Your task to perform on an android device: change keyboard looks Image 0: 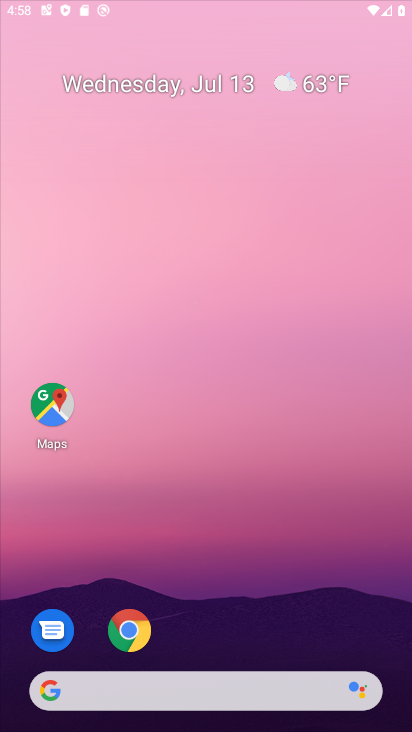
Step 0: press home button
Your task to perform on an android device: change keyboard looks Image 1: 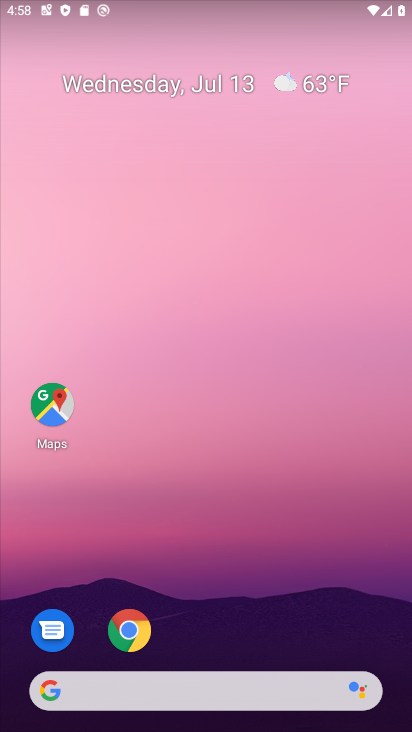
Step 1: drag from (245, 606) to (280, 68)
Your task to perform on an android device: change keyboard looks Image 2: 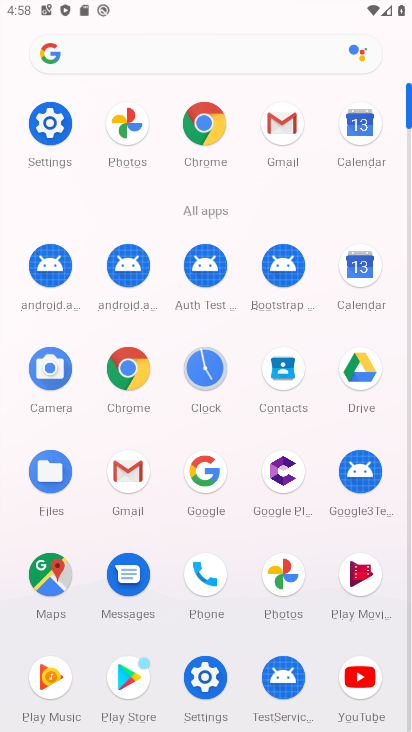
Step 2: click (58, 124)
Your task to perform on an android device: change keyboard looks Image 3: 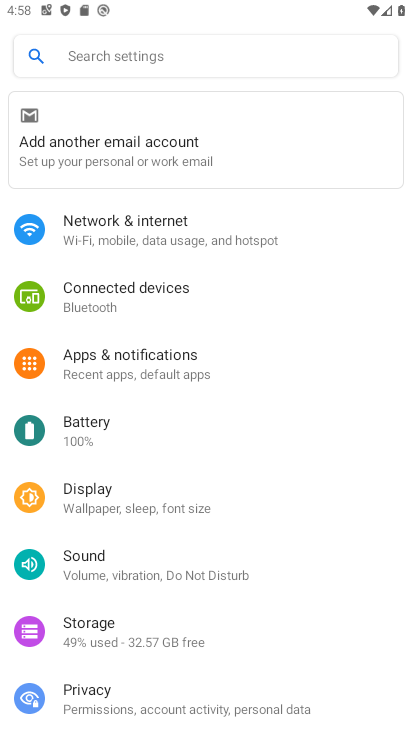
Step 3: drag from (351, 690) to (338, 98)
Your task to perform on an android device: change keyboard looks Image 4: 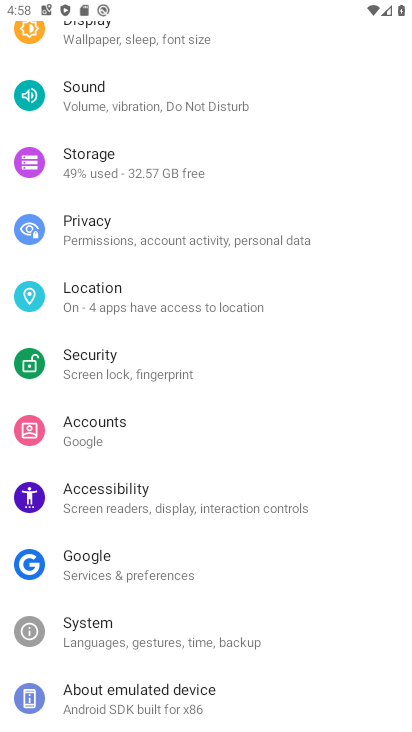
Step 4: click (100, 629)
Your task to perform on an android device: change keyboard looks Image 5: 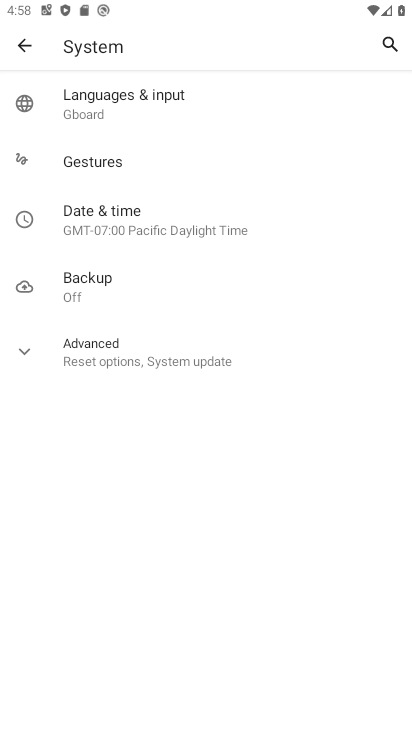
Step 5: click (104, 105)
Your task to perform on an android device: change keyboard looks Image 6: 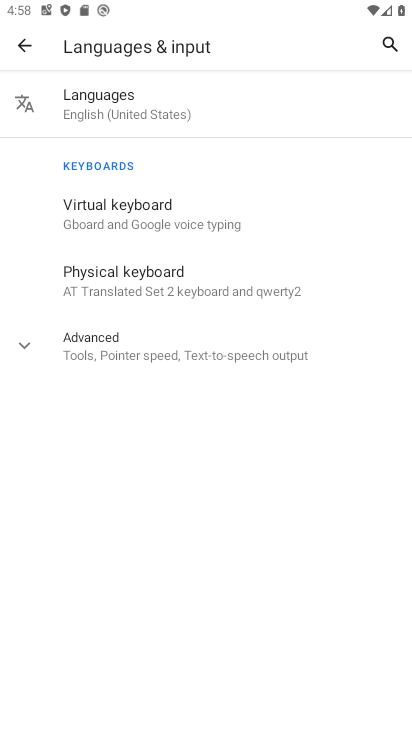
Step 6: click (119, 219)
Your task to perform on an android device: change keyboard looks Image 7: 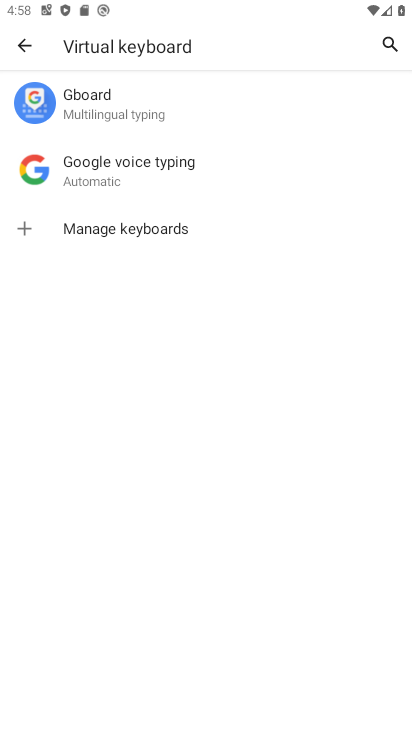
Step 7: click (97, 112)
Your task to perform on an android device: change keyboard looks Image 8: 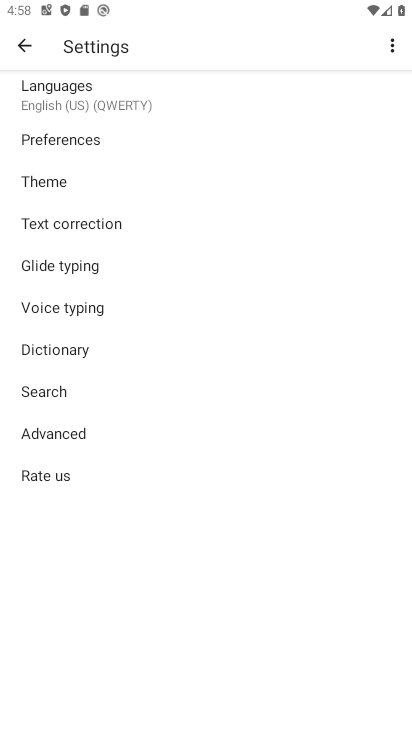
Step 8: click (48, 177)
Your task to perform on an android device: change keyboard looks Image 9: 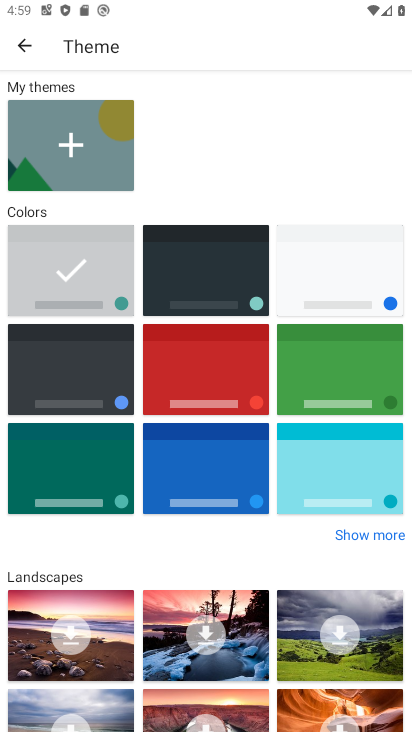
Step 9: click (212, 479)
Your task to perform on an android device: change keyboard looks Image 10: 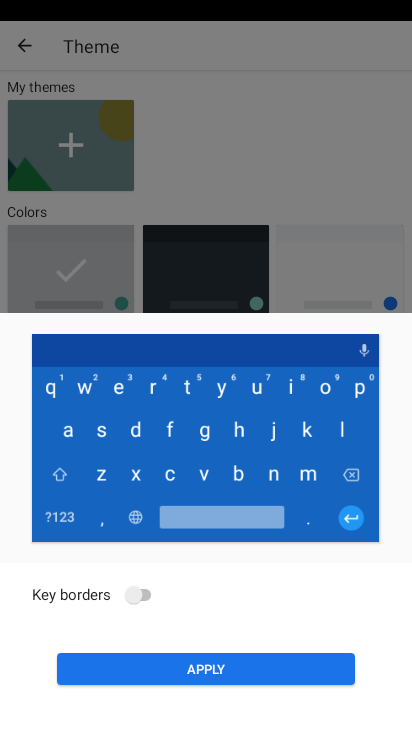
Step 10: click (173, 675)
Your task to perform on an android device: change keyboard looks Image 11: 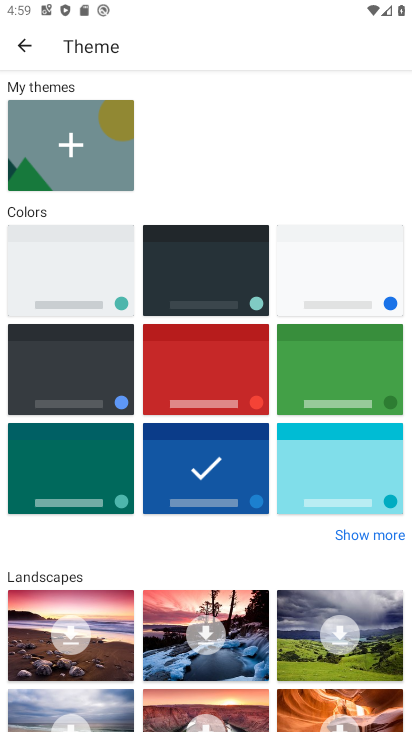
Step 11: task complete